Your task to perform on an android device: What's on my calendar today? Image 0: 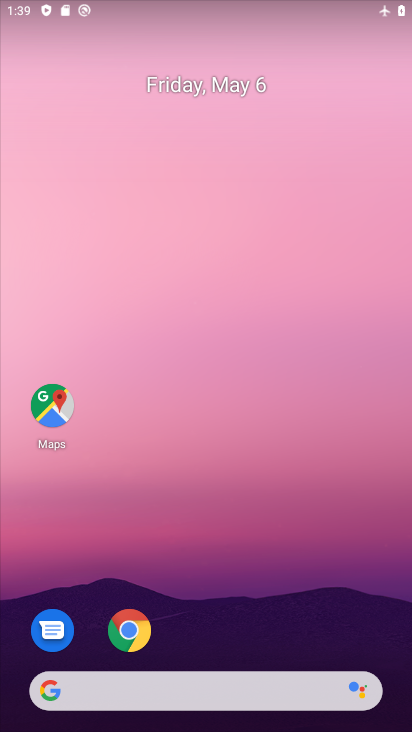
Step 0: drag from (232, 696) to (223, 12)
Your task to perform on an android device: What's on my calendar today? Image 1: 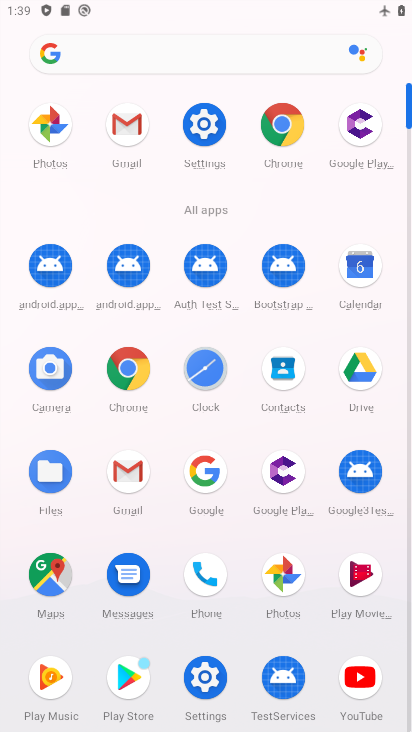
Step 1: click (371, 269)
Your task to perform on an android device: What's on my calendar today? Image 2: 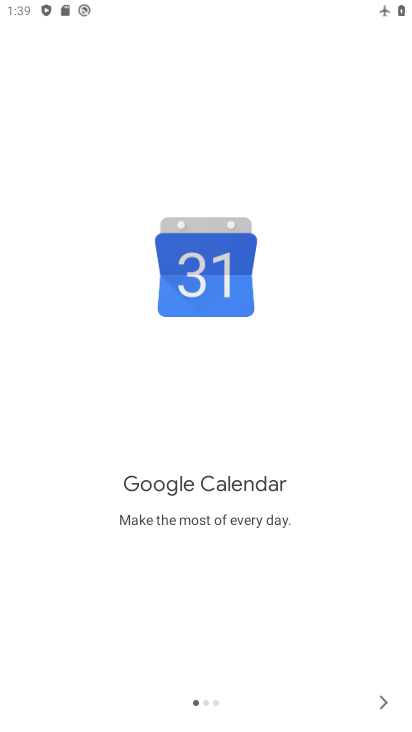
Step 2: click (374, 701)
Your task to perform on an android device: What's on my calendar today? Image 3: 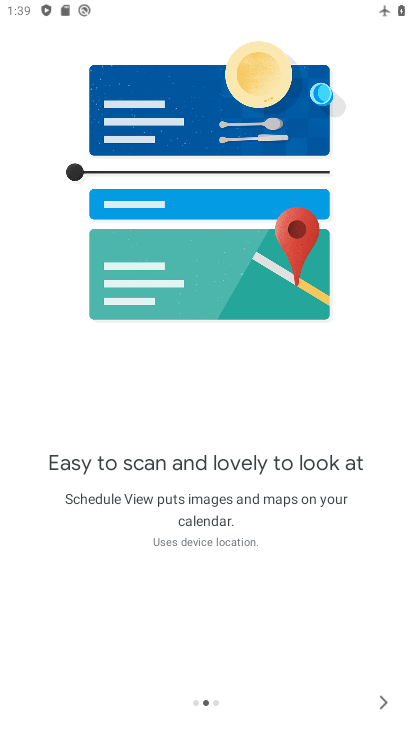
Step 3: click (374, 701)
Your task to perform on an android device: What's on my calendar today? Image 4: 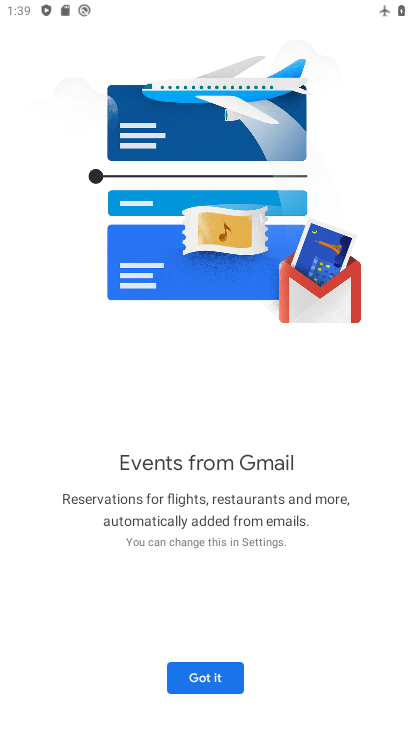
Step 4: click (211, 686)
Your task to perform on an android device: What's on my calendar today? Image 5: 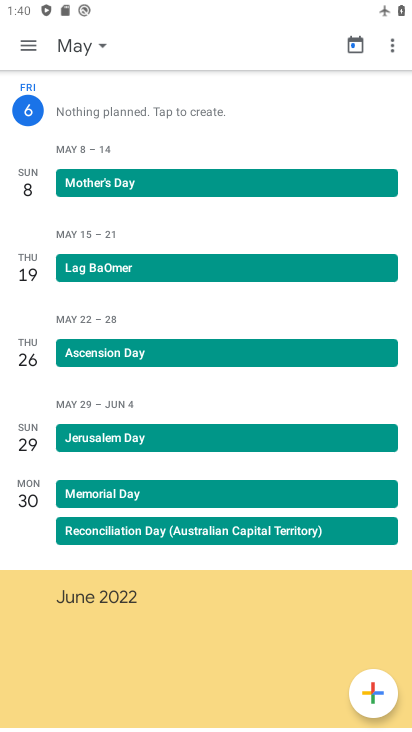
Step 5: task complete